Your task to perform on an android device: toggle notifications settings in the gmail app Image 0: 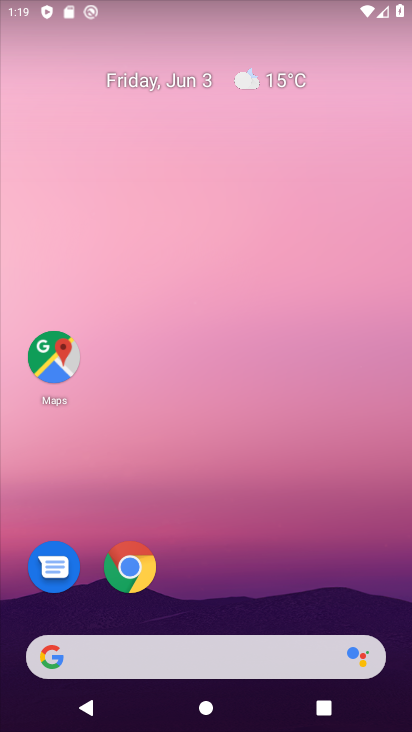
Step 0: drag from (253, 575) to (253, 98)
Your task to perform on an android device: toggle notifications settings in the gmail app Image 1: 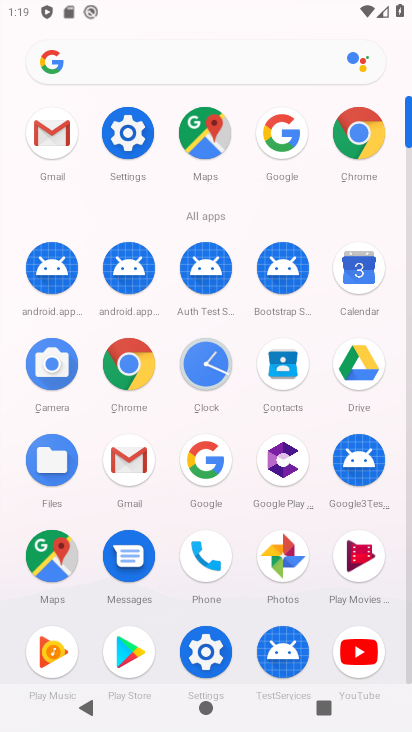
Step 1: click (119, 454)
Your task to perform on an android device: toggle notifications settings in the gmail app Image 2: 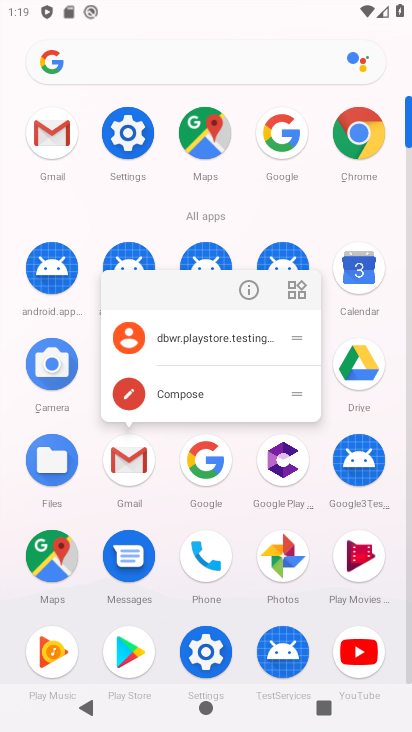
Step 2: click (250, 283)
Your task to perform on an android device: toggle notifications settings in the gmail app Image 3: 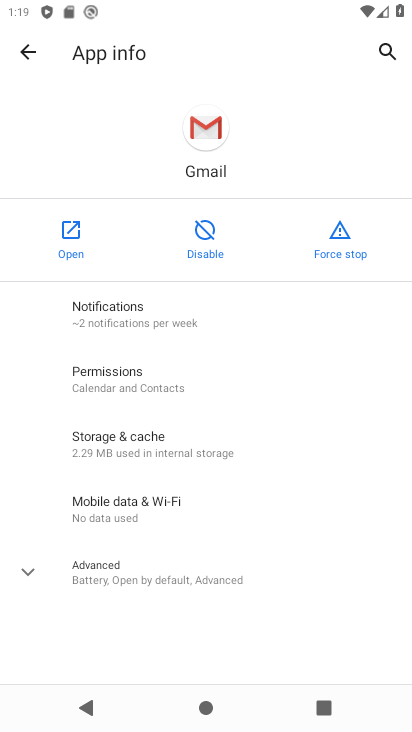
Step 3: click (152, 322)
Your task to perform on an android device: toggle notifications settings in the gmail app Image 4: 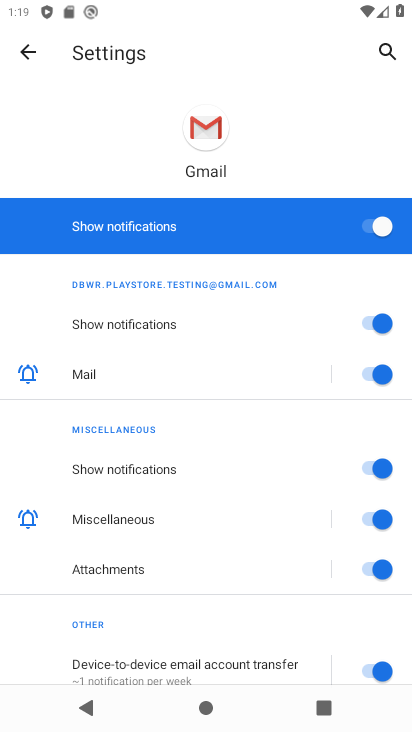
Step 4: click (381, 220)
Your task to perform on an android device: toggle notifications settings in the gmail app Image 5: 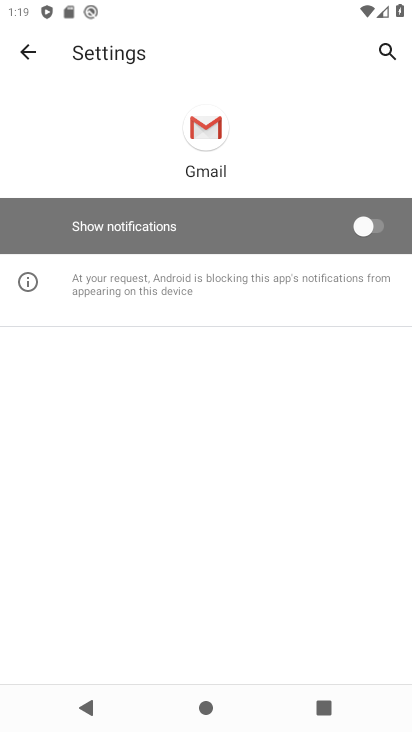
Step 5: task complete